Your task to perform on an android device: Do I have any events tomorrow? Image 0: 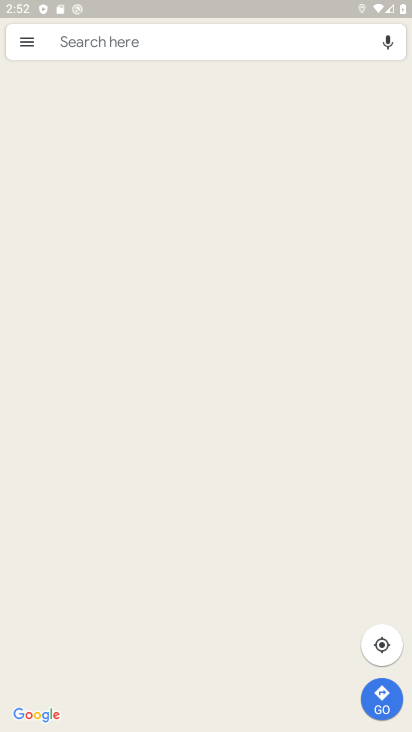
Step 0: press home button
Your task to perform on an android device: Do I have any events tomorrow? Image 1: 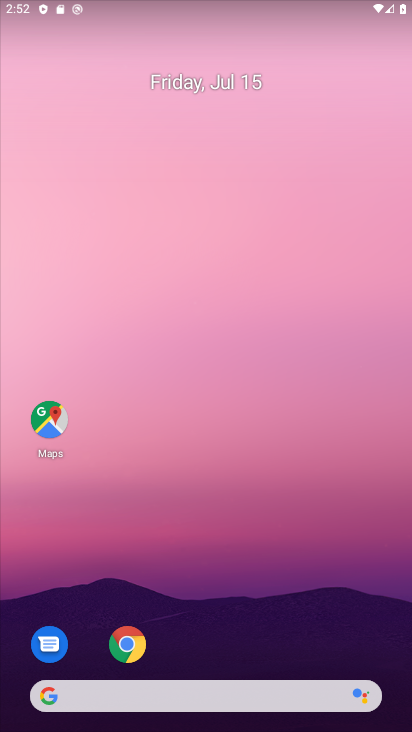
Step 1: drag from (236, 671) to (254, 6)
Your task to perform on an android device: Do I have any events tomorrow? Image 2: 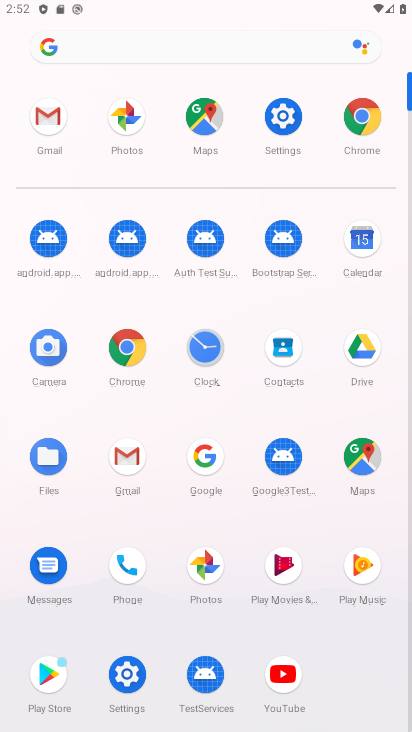
Step 2: click (362, 240)
Your task to perform on an android device: Do I have any events tomorrow? Image 3: 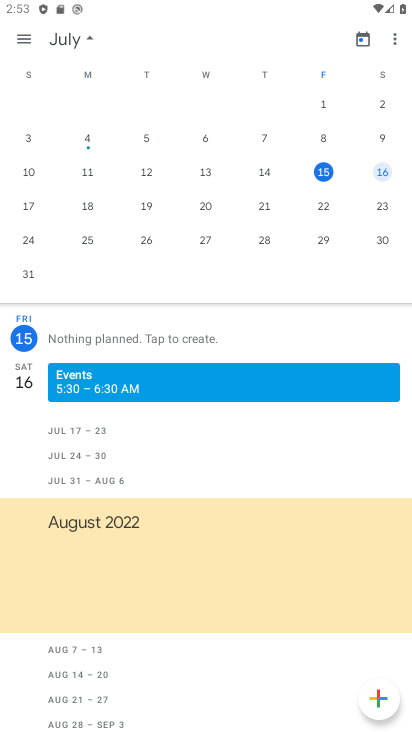
Step 3: click (378, 171)
Your task to perform on an android device: Do I have any events tomorrow? Image 4: 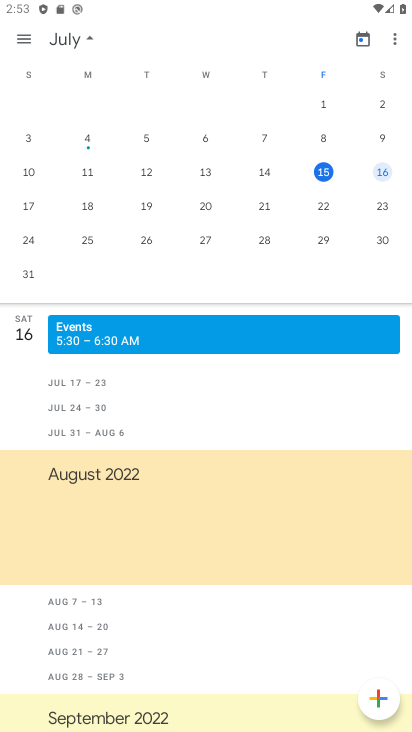
Step 4: task complete